Your task to perform on an android device: Open Google Image 0: 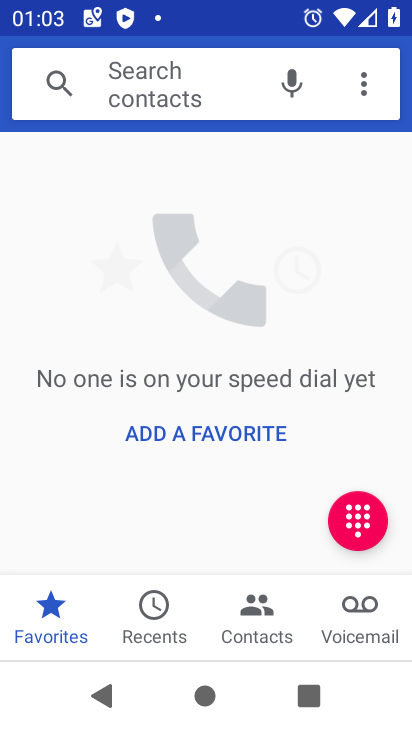
Step 0: press home button
Your task to perform on an android device: Open Google Image 1: 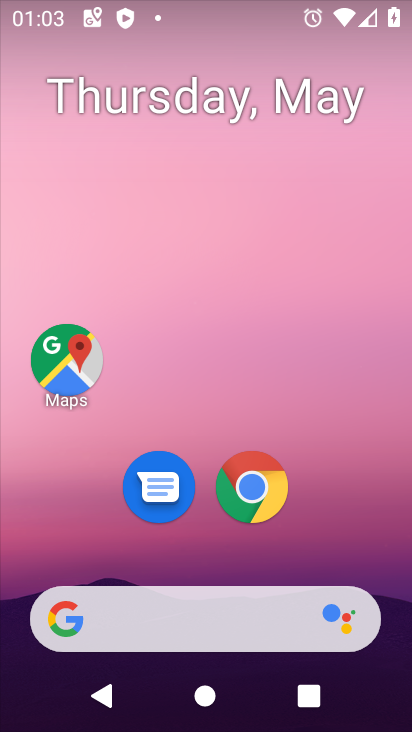
Step 1: drag from (402, 544) to (385, 1)
Your task to perform on an android device: Open Google Image 2: 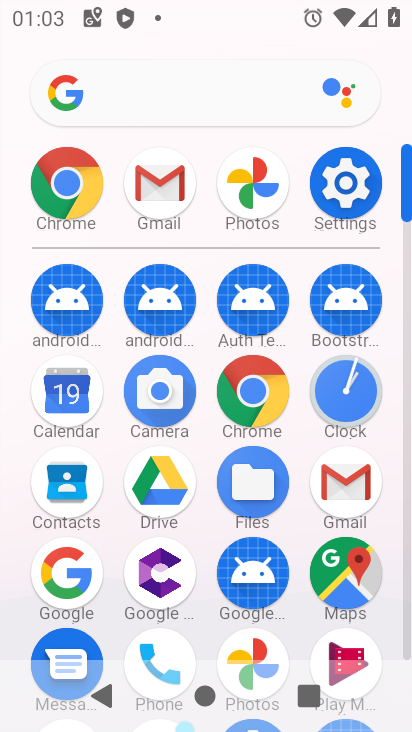
Step 2: click (77, 578)
Your task to perform on an android device: Open Google Image 3: 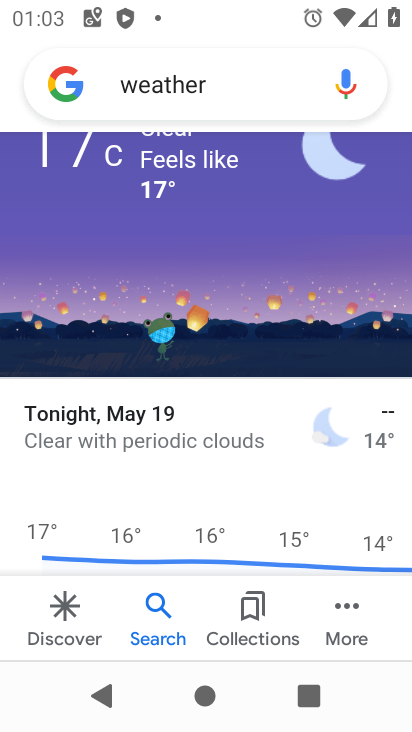
Step 3: task complete